Your task to perform on an android device: Go to Maps Image 0: 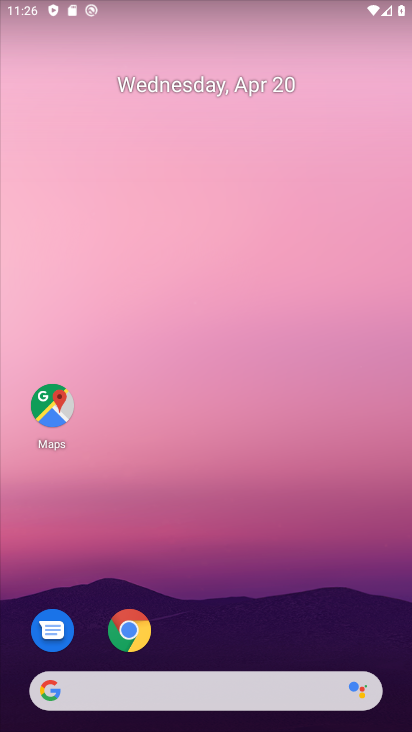
Step 0: click (56, 426)
Your task to perform on an android device: Go to Maps Image 1: 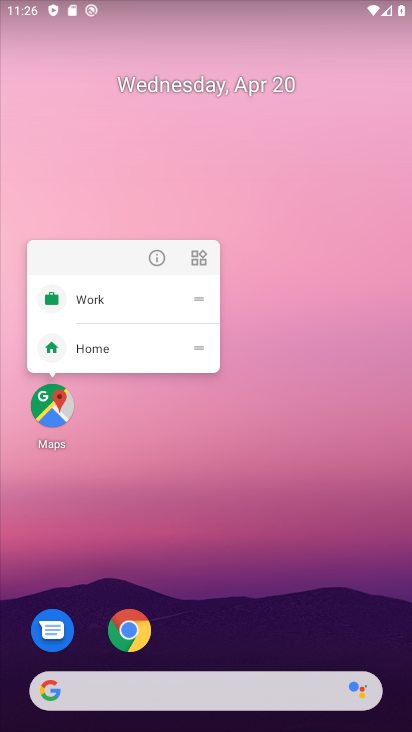
Step 1: click (34, 413)
Your task to perform on an android device: Go to Maps Image 2: 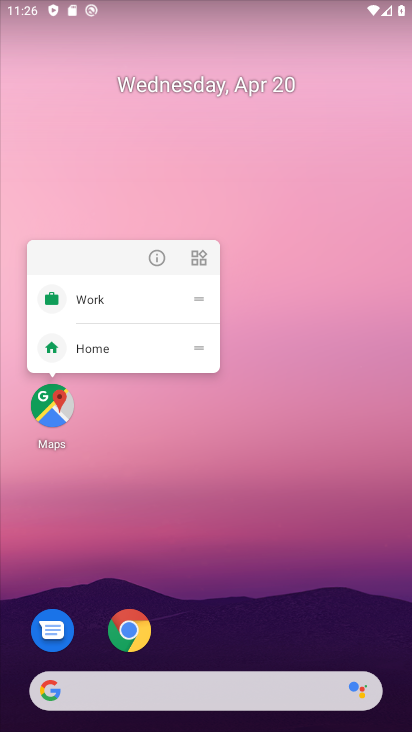
Step 2: click (49, 401)
Your task to perform on an android device: Go to Maps Image 3: 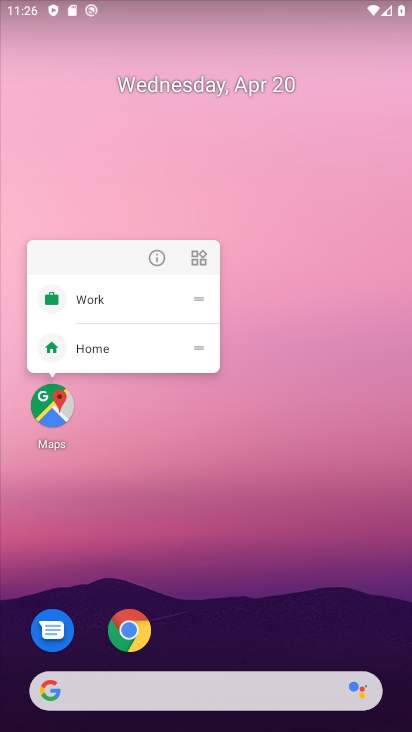
Step 3: click (51, 409)
Your task to perform on an android device: Go to Maps Image 4: 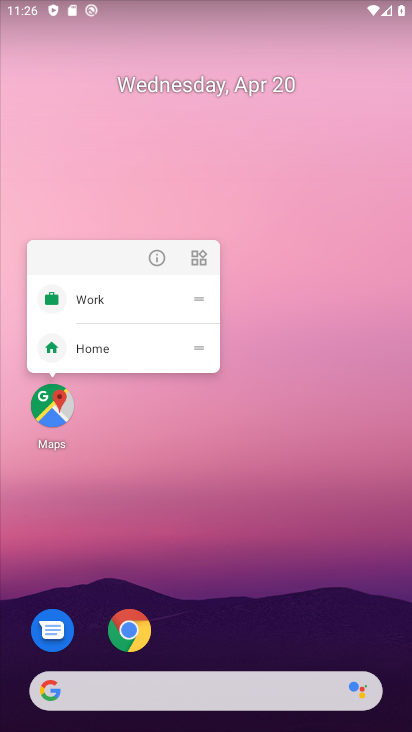
Step 4: click (66, 411)
Your task to perform on an android device: Go to Maps Image 5: 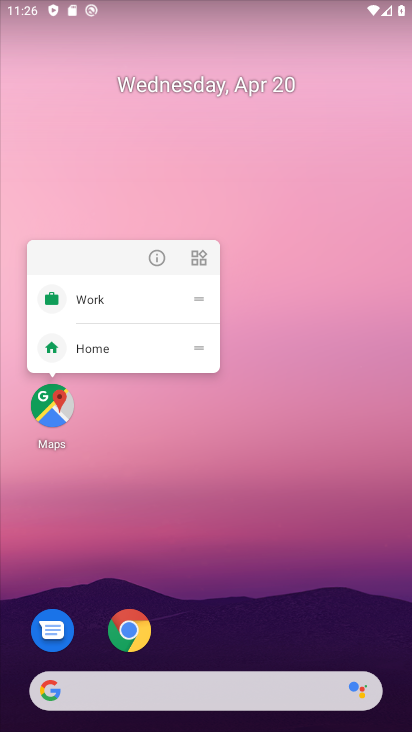
Step 5: click (65, 412)
Your task to perform on an android device: Go to Maps Image 6: 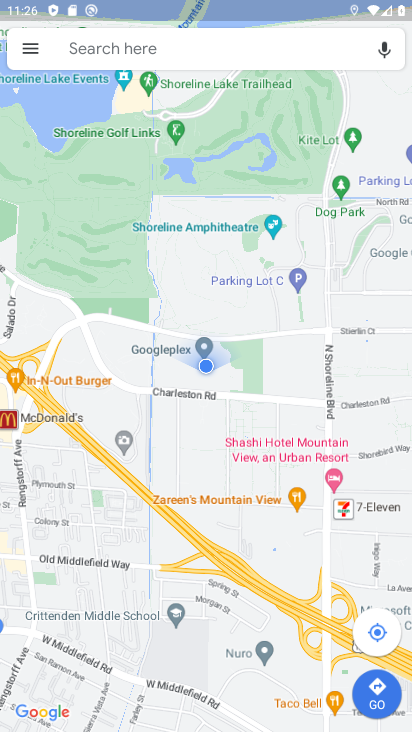
Step 6: task complete